Your task to perform on an android device: turn off picture-in-picture Image 0: 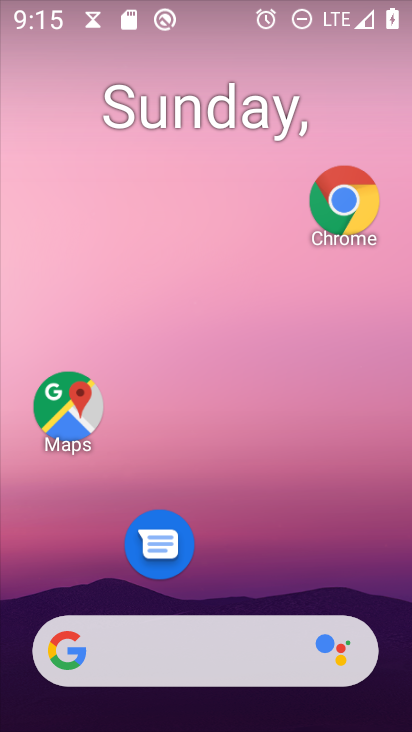
Step 0: click (338, 198)
Your task to perform on an android device: turn off picture-in-picture Image 1: 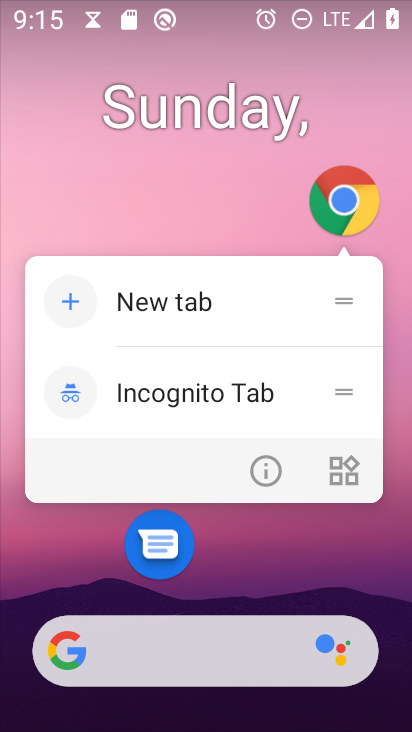
Step 1: click (270, 468)
Your task to perform on an android device: turn off picture-in-picture Image 2: 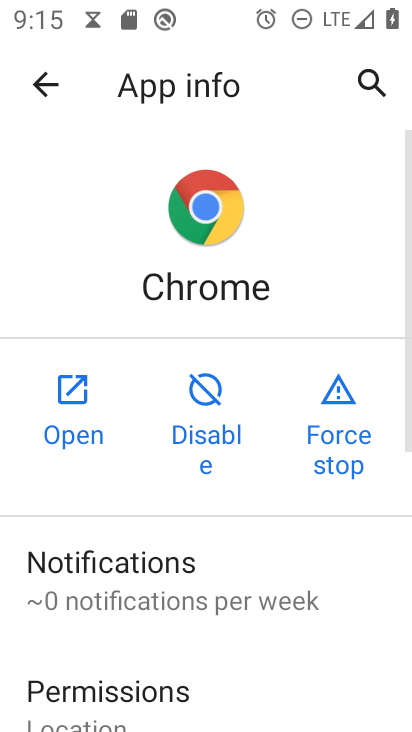
Step 2: drag from (231, 669) to (236, 272)
Your task to perform on an android device: turn off picture-in-picture Image 3: 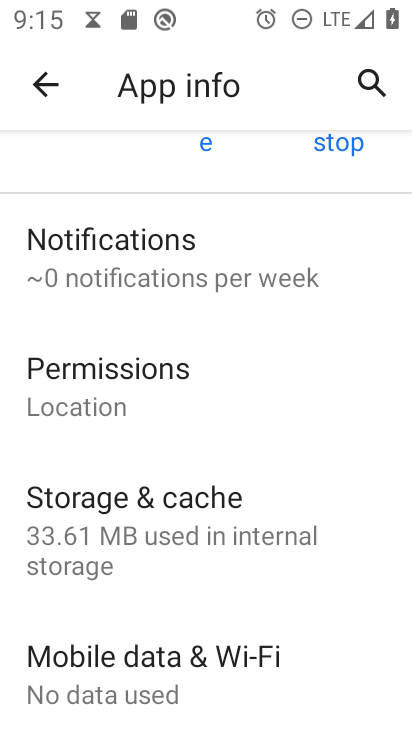
Step 3: drag from (170, 637) to (184, 254)
Your task to perform on an android device: turn off picture-in-picture Image 4: 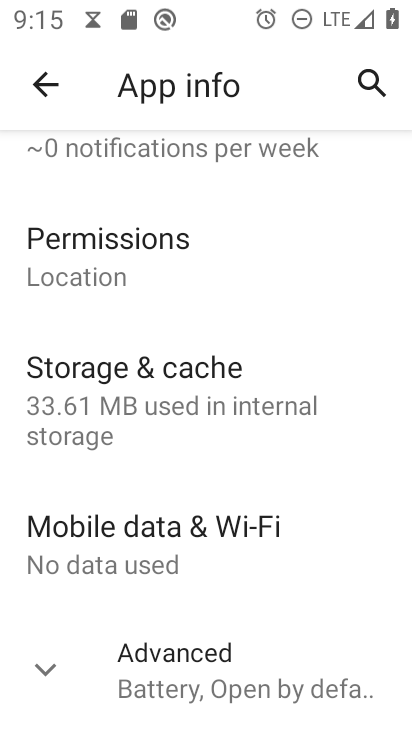
Step 4: click (165, 688)
Your task to perform on an android device: turn off picture-in-picture Image 5: 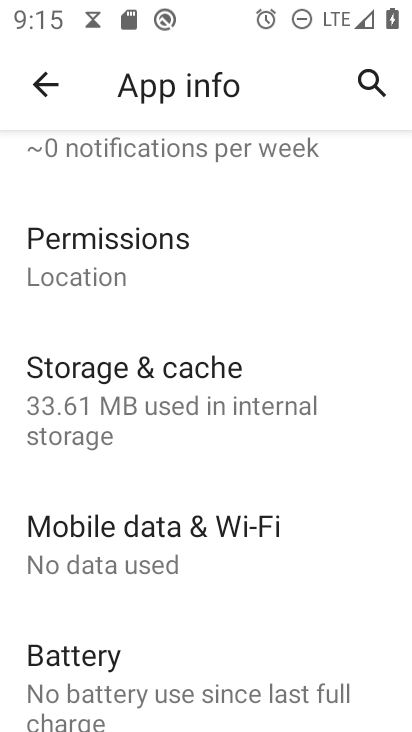
Step 5: drag from (177, 686) to (234, 286)
Your task to perform on an android device: turn off picture-in-picture Image 6: 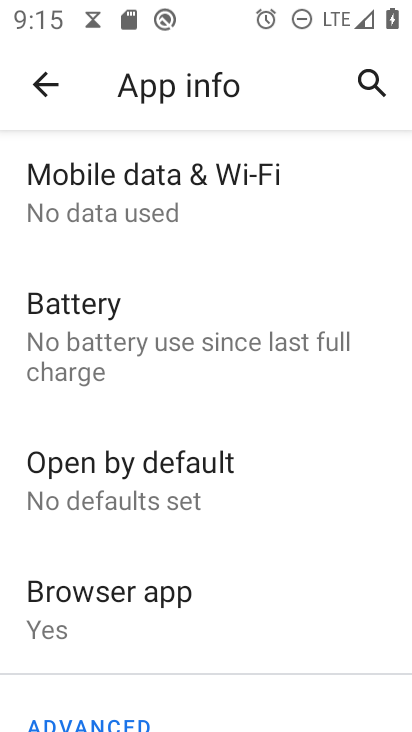
Step 6: drag from (189, 620) to (243, 242)
Your task to perform on an android device: turn off picture-in-picture Image 7: 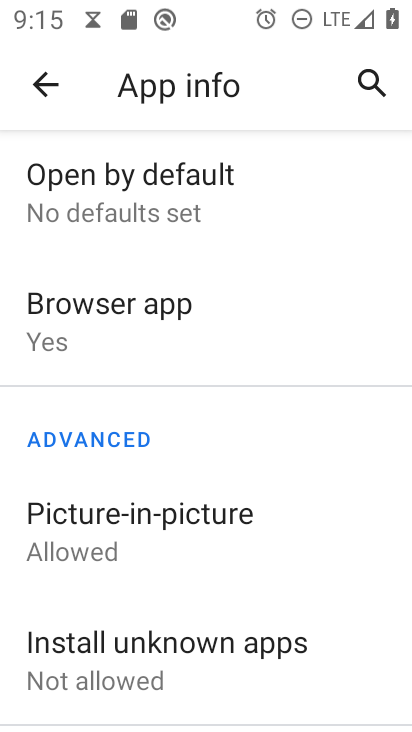
Step 7: click (192, 538)
Your task to perform on an android device: turn off picture-in-picture Image 8: 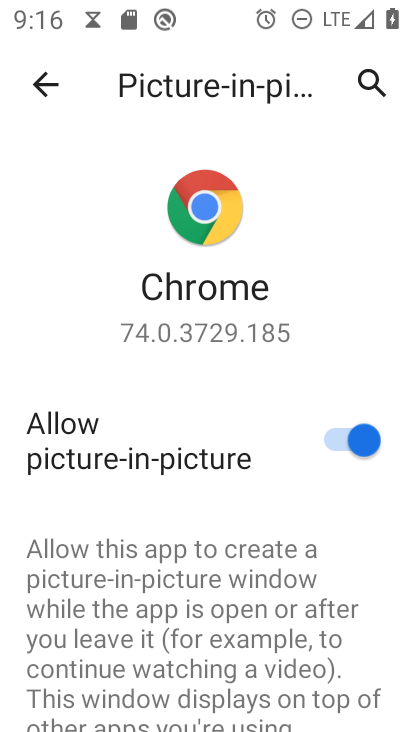
Step 8: click (333, 434)
Your task to perform on an android device: turn off picture-in-picture Image 9: 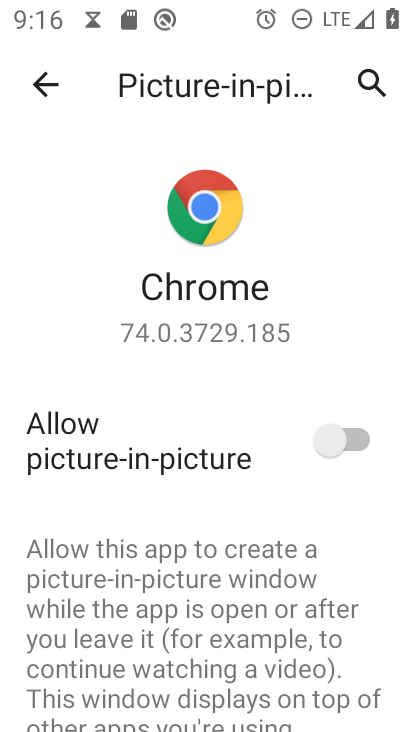
Step 9: task complete